Your task to perform on an android device: find which apps use the phone's location Image 0: 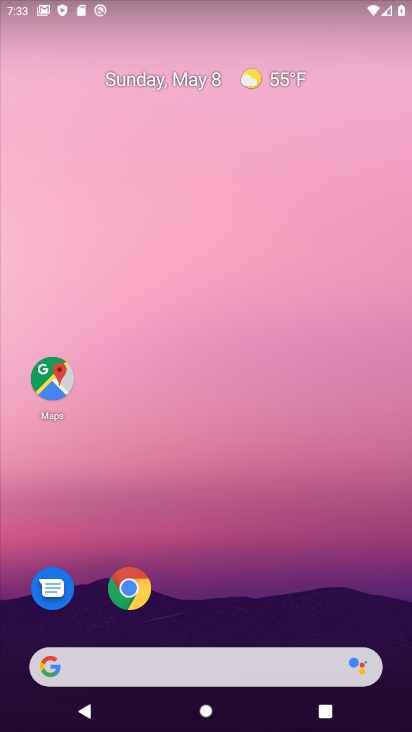
Step 0: drag from (332, 606) to (237, 37)
Your task to perform on an android device: find which apps use the phone's location Image 1: 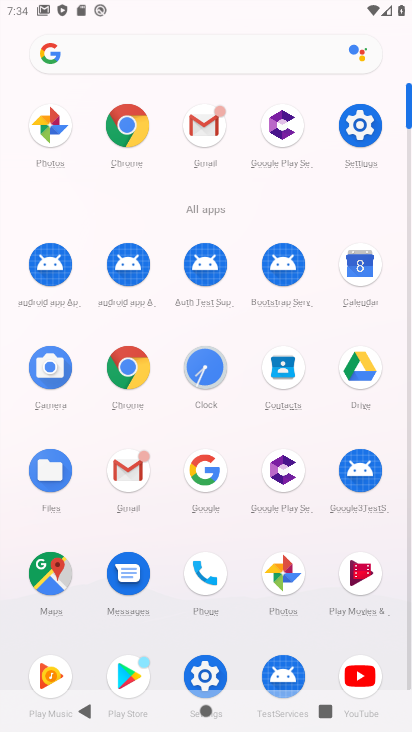
Step 1: click (361, 128)
Your task to perform on an android device: find which apps use the phone's location Image 2: 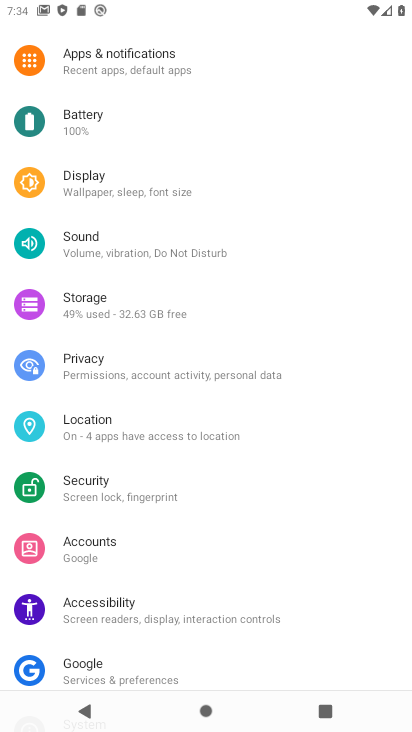
Step 2: click (123, 431)
Your task to perform on an android device: find which apps use the phone's location Image 3: 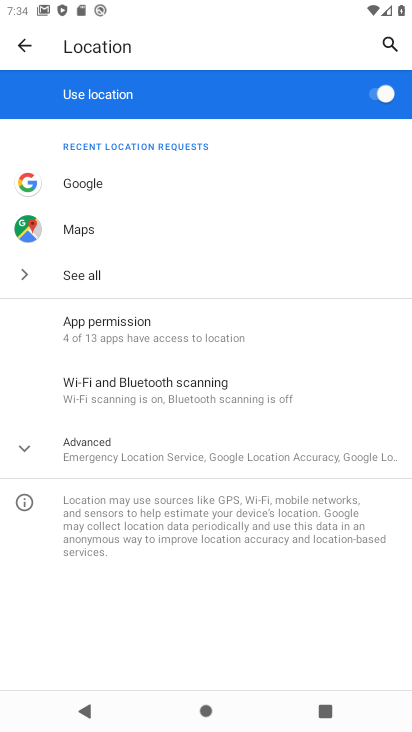
Step 3: click (35, 446)
Your task to perform on an android device: find which apps use the phone's location Image 4: 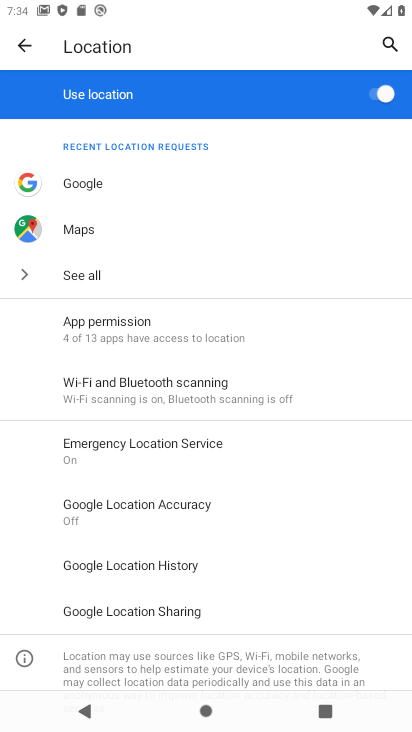
Step 4: click (87, 332)
Your task to perform on an android device: find which apps use the phone's location Image 5: 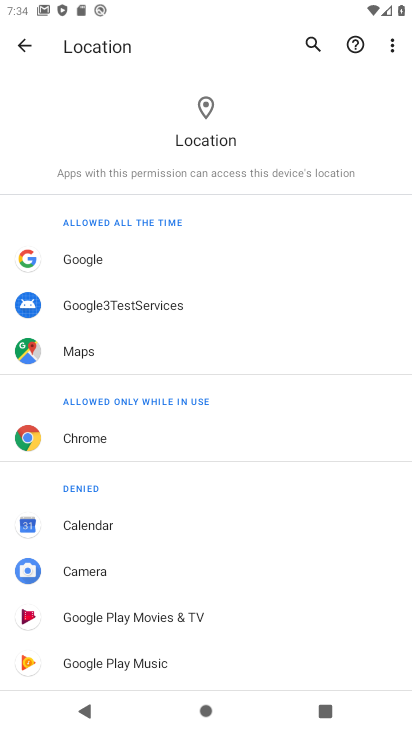
Step 5: drag from (104, 608) to (130, 369)
Your task to perform on an android device: find which apps use the phone's location Image 6: 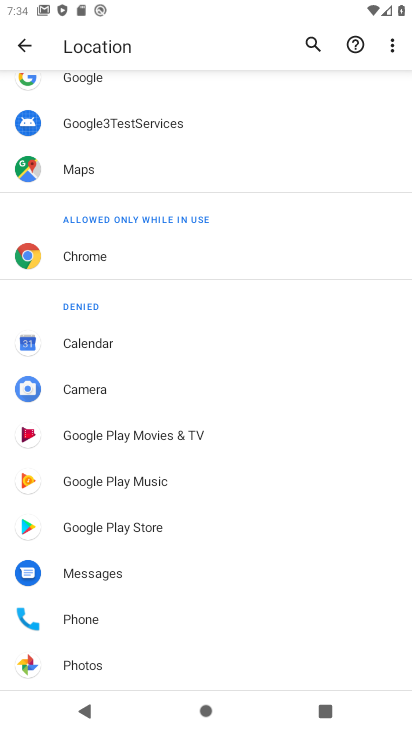
Step 6: click (87, 622)
Your task to perform on an android device: find which apps use the phone's location Image 7: 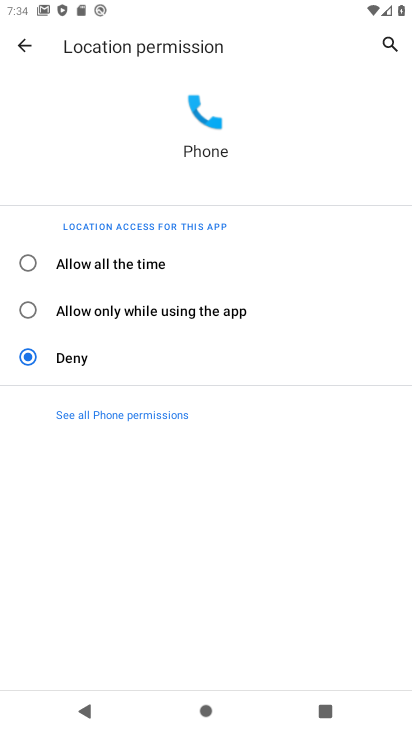
Step 7: click (66, 264)
Your task to perform on an android device: find which apps use the phone's location Image 8: 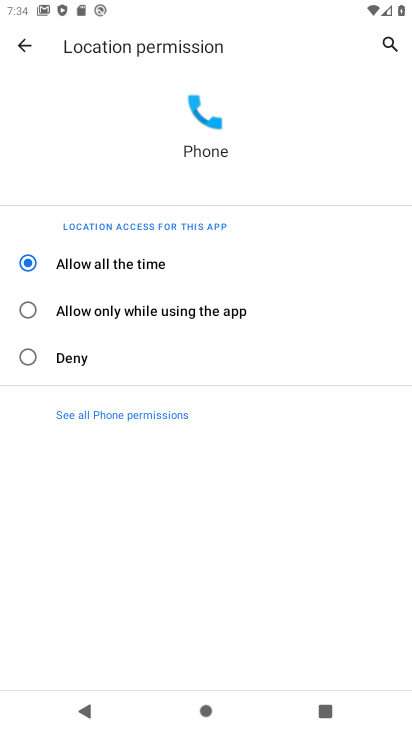
Step 8: task complete